Your task to perform on an android device: Open the calendar and show me this week's events? Image 0: 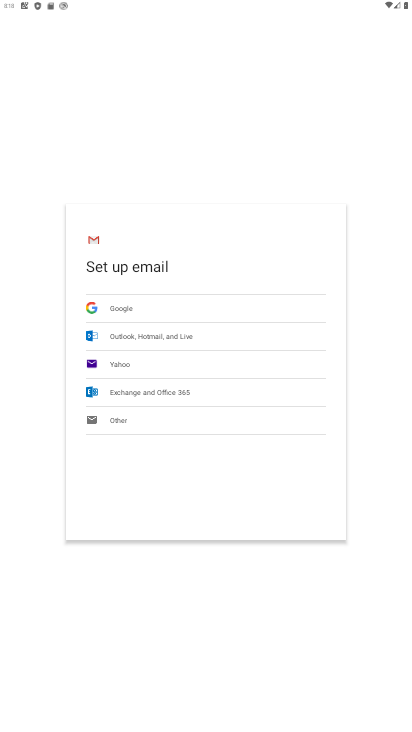
Step 0: press home button
Your task to perform on an android device: Open the calendar and show me this week's events? Image 1: 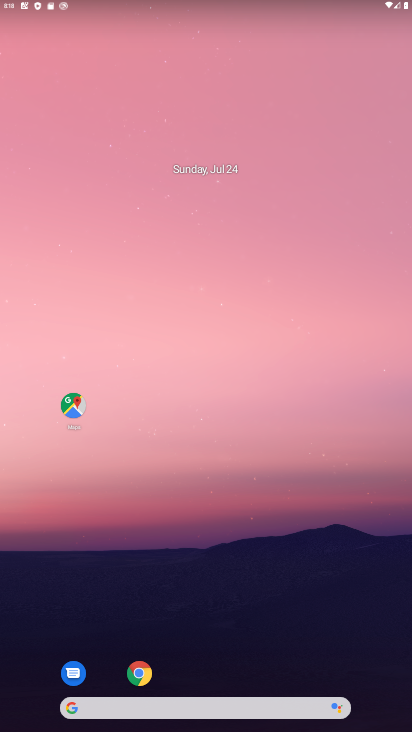
Step 1: drag from (177, 522) to (198, 159)
Your task to perform on an android device: Open the calendar and show me this week's events? Image 2: 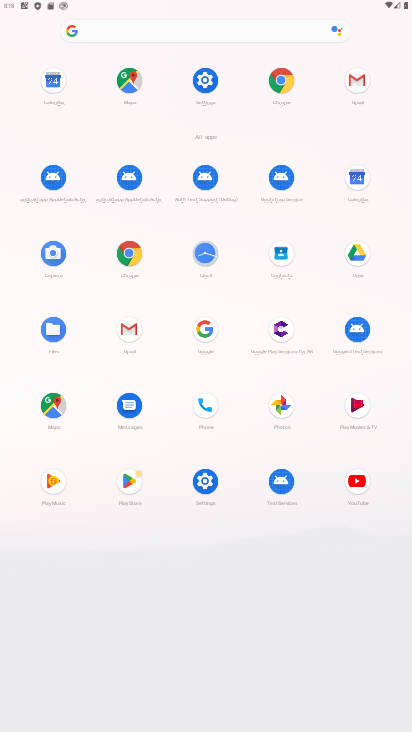
Step 2: click (352, 181)
Your task to perform on an android device: Open the calendar and show me this week's events? Image 3: 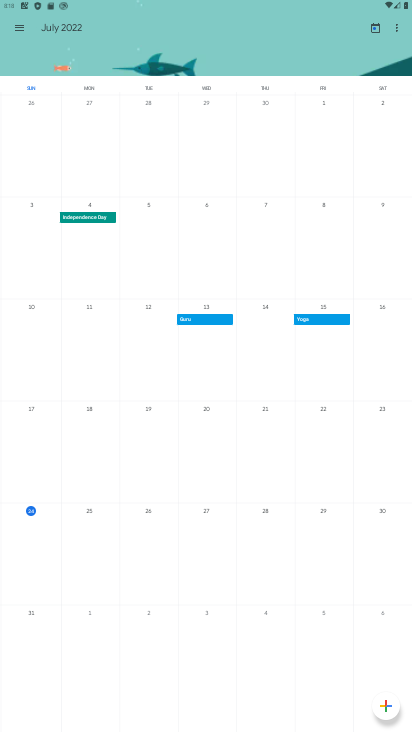
Step 3: task complete